Your task to perform on an android device: read, delete, or share a saved page in the chrome app Image 0: 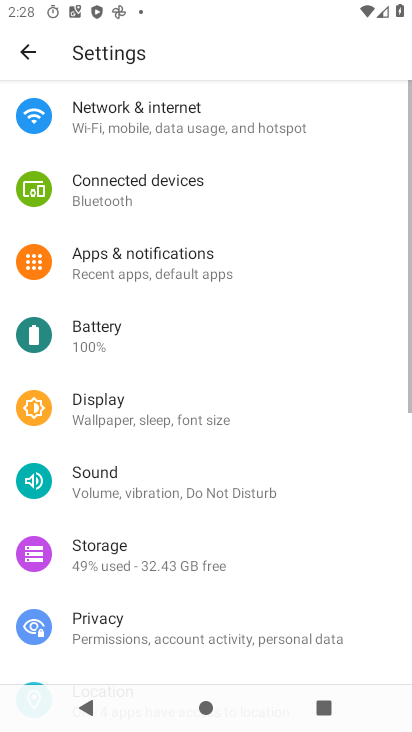
Step 0: press home button
Your task to perform on an android device: read, delete, or share a saved page in the chrome app Image 1: 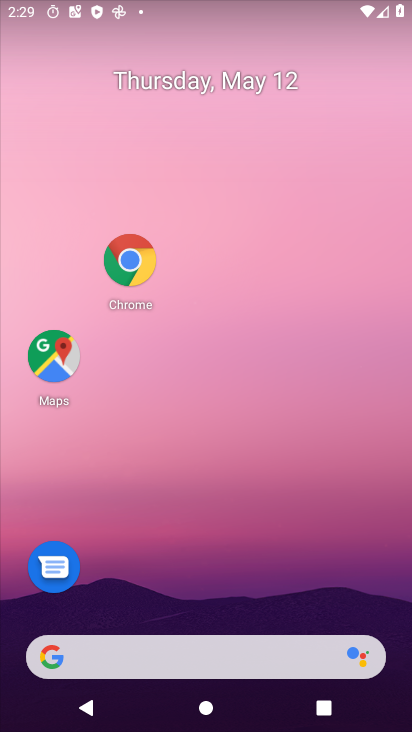
Step 1: click (126, 242)
Your task to perform on an android device: read, delete, or share a saved page in the chrome app Image 2: 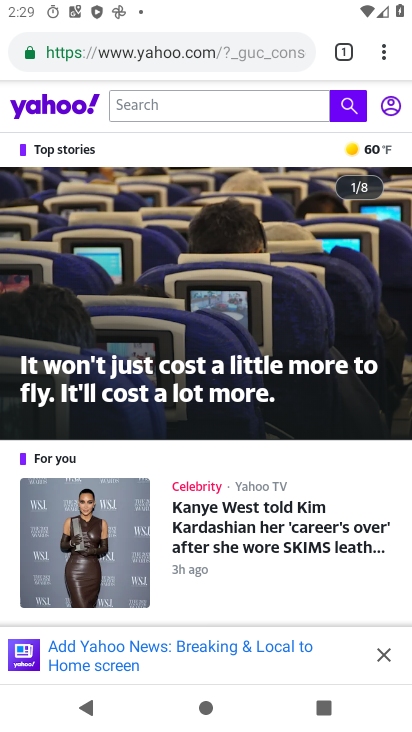
Step 2: click (385, 53)
Your task to perform on an android device: read, delete, or share a saved page in the chrome app Image 3: 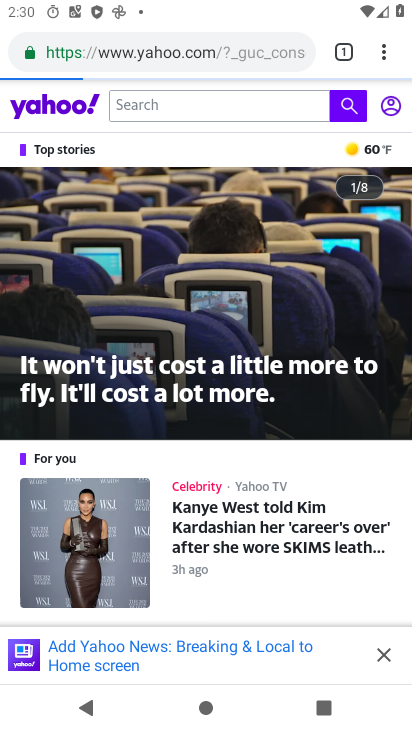
Step 3: click (381, 52)
Your task to perform on an android device: read, delete, or share a saved page in the chrome app Image 4: 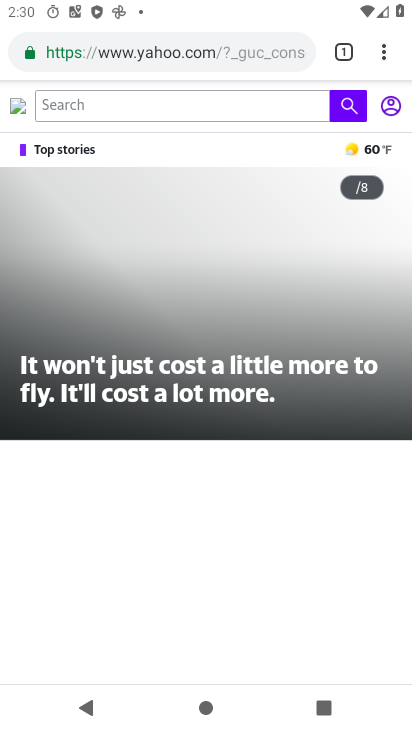
Step 4: click (382, 51)
Your task to perform on an android device: read, delete, or share a saved page in the chrome app Image 5: 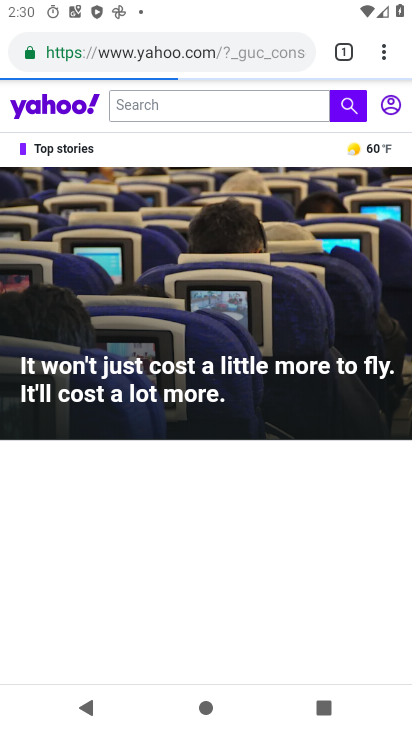
Step 5: click (389, 51)
Your task to perform on an android device: read, delete, or share a saved page in the chrome app Image 6: 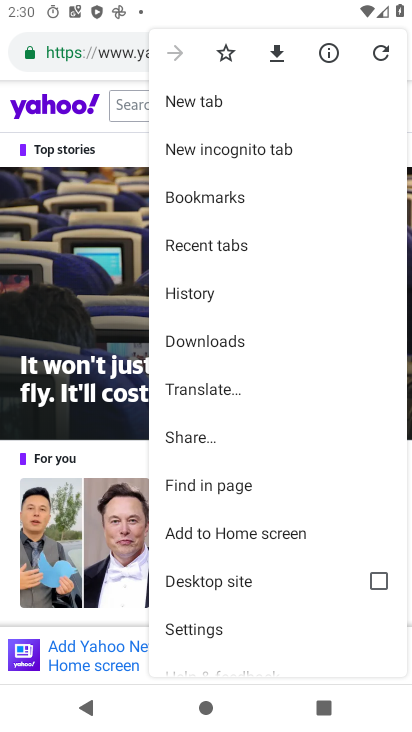
Step 6: click (207, 336)
Your task to perform on an android device: read, delete, or share a saved page in the chrome app Image 7: 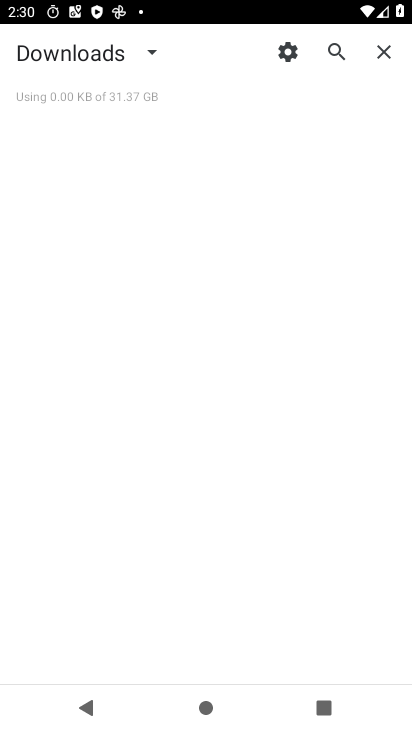
Step 7: click (148, 55)
Your task to perform on an android device: read, delete, or share a saved page in the chrome app Image 8: 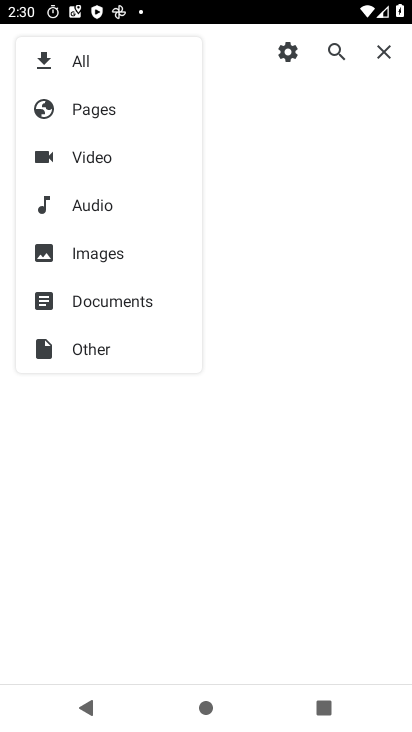
Step 8: click (91, 109)
Your task to perform on an android device: read, delete, or share a saved page in the chrome app Image 9: 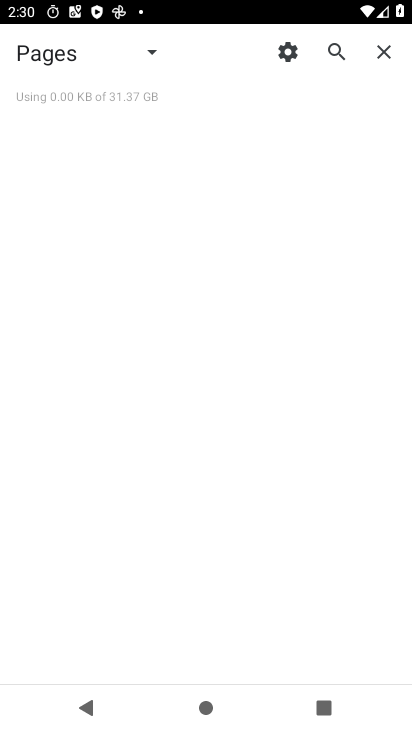
Step 9: task complete